Your task to perform on an android device: Open Reddit.com Image 0: 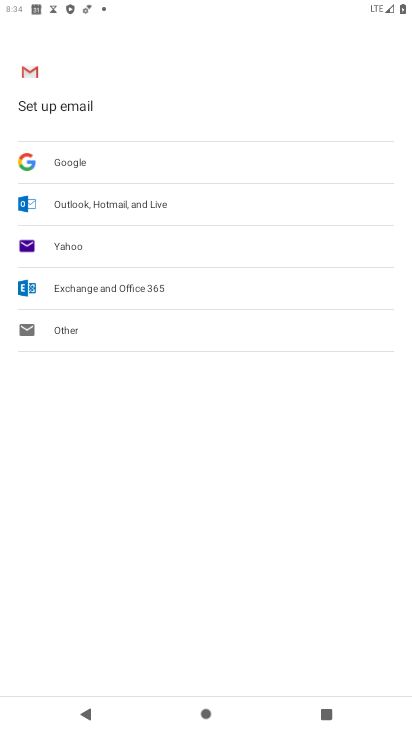
Step 0: press home button
Your task to perform on an android device: Open Reddit.com Image 1: 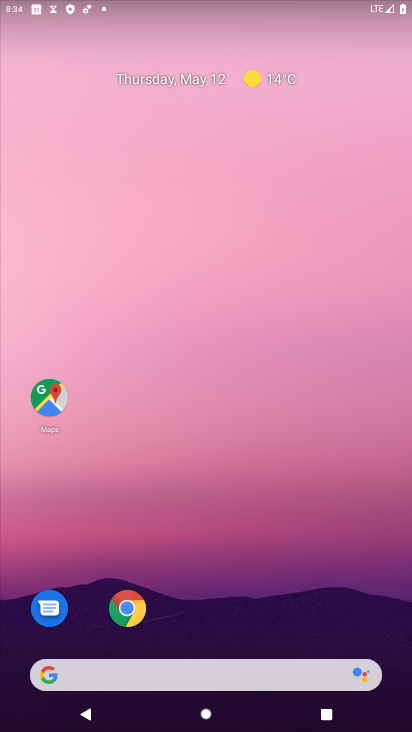
Step 1: drag from (197, 658) to (204, 313)
Your task to perform on an android device: Open Reddit.com Image 2: 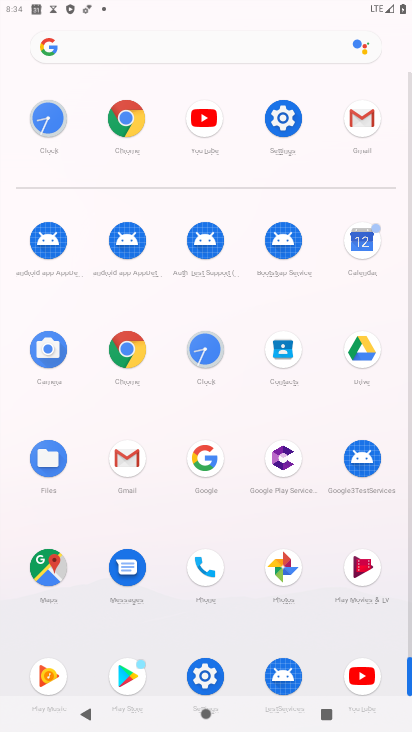
Step 2: click (200, 466)
Your task to perform on an android device: Open Reddit.com Image 3: 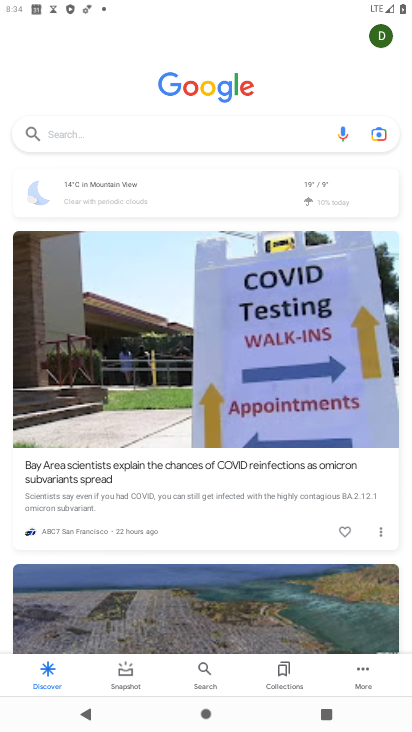
Step 3: click (104, 137)
Your task to perform on an android device: Open Reddit.com Image 4: 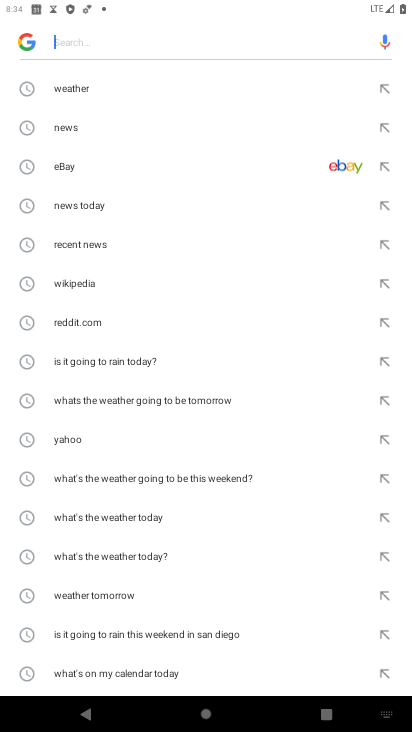
Step 4: click (74, 324)
Your task to perform on an android device: Open Reddit.com Image 5: 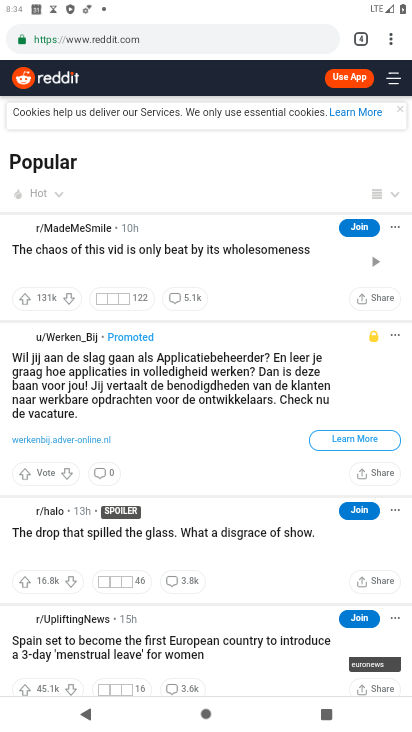
Step 5: task complete